Your task to perform on an android device: Open Chrome and go to the settings page Image 0: 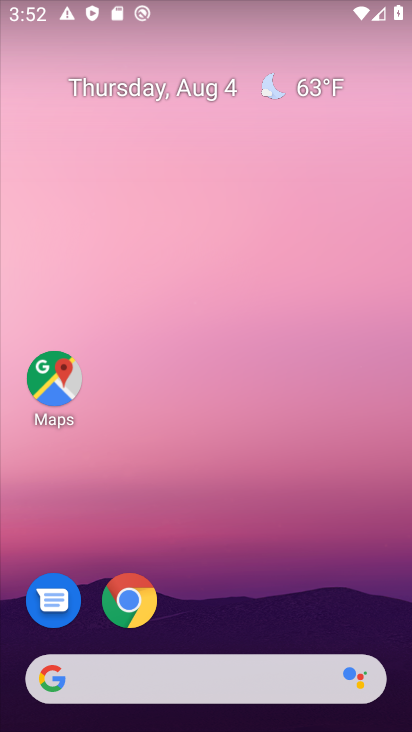
Step 0: drag from (331, 556) to (275, 26)
Your task to perform on an android device: Open Chrome and go to the settings page Image 1: 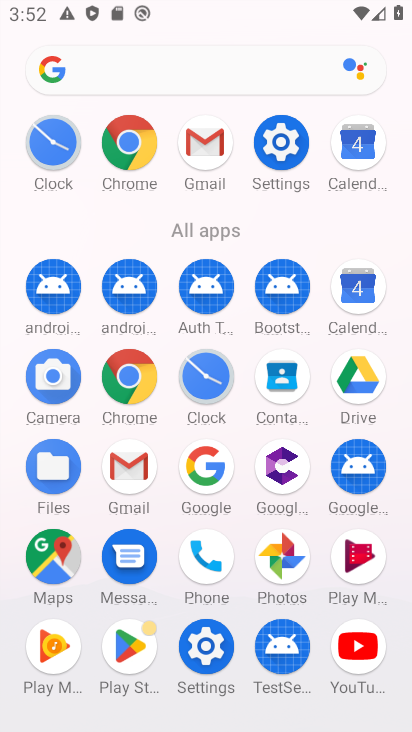
Step 1: click (130, 357)
Your task to perform on an android device: Open Chrome and go to the settings page Image 2: 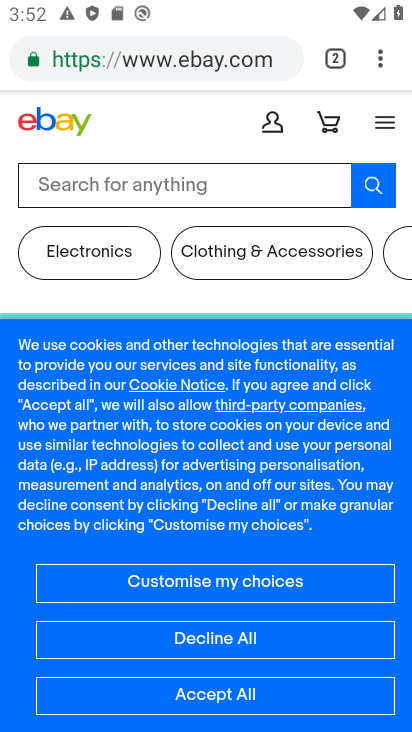
Step 2: task complete